Your task to perform on an android device: turn on priority inbox in the gmail app Image 0: 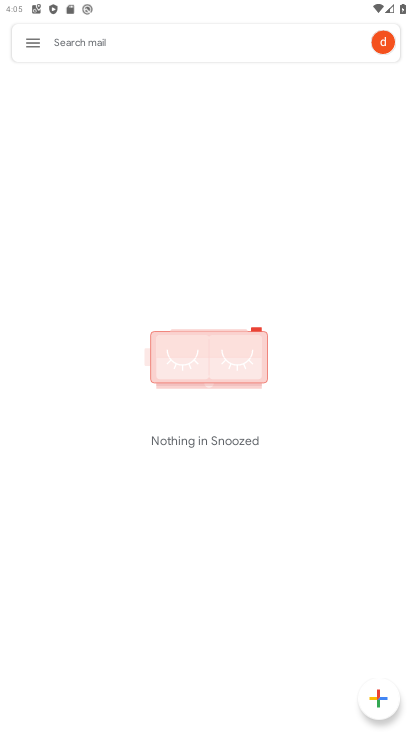
Step 0: press home button
Your task to perform on an android device: turn on priority inbox in the gmail app Image 1: 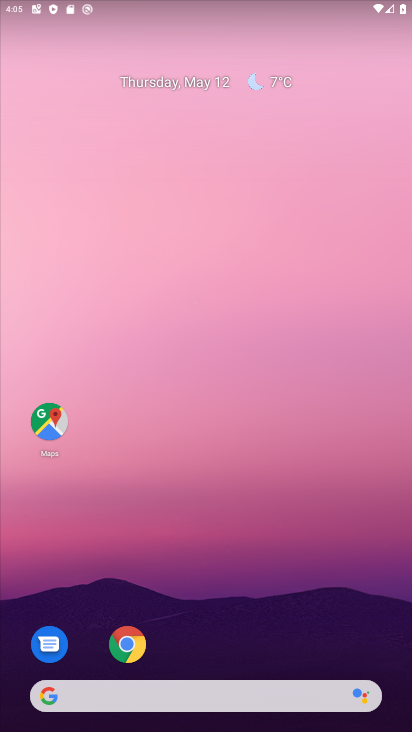
Step 1: drag from (225, 662) to (283, 129)
Your task to perform on an android device: turn on priority inbox in the gmail app Image 2: 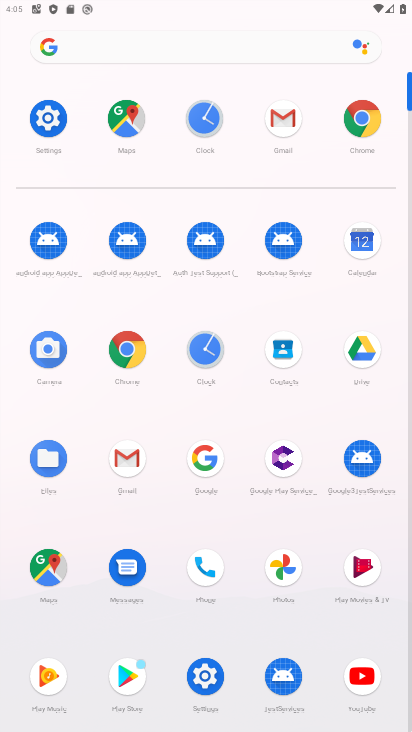
Step 2: click (122, 453)
Your task to perform on an android device: turn on priority inbox in the gmail app Image 3: 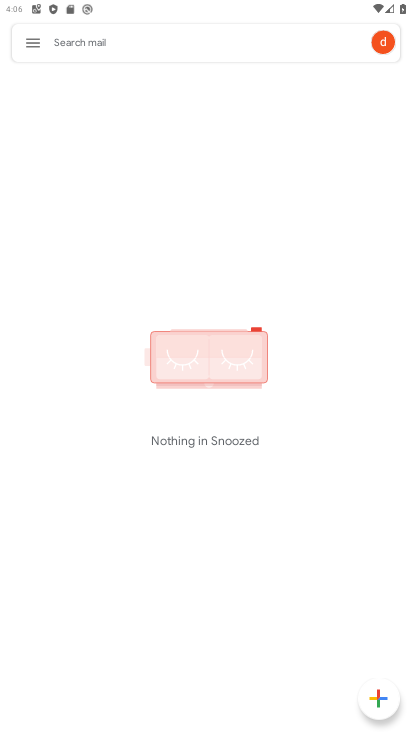
Step 3: click (30, 46)
Your task to perform on an android device: turn on priority inbox in the gmail app Image 4: 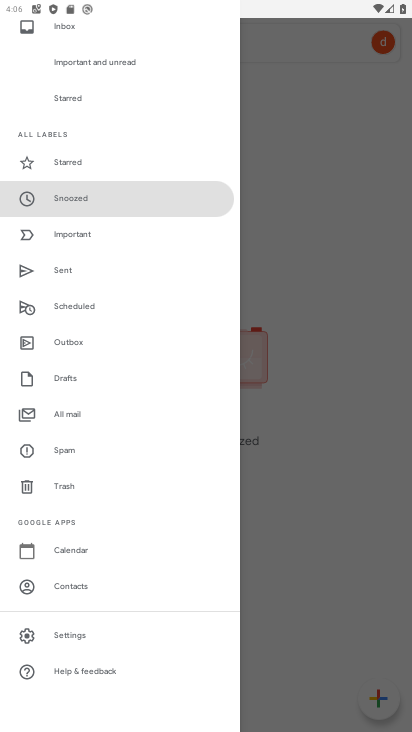
Step 4: click (98, 630)
Your task to perform on an android device: turn on priority inbox in the gmail app Image 5: 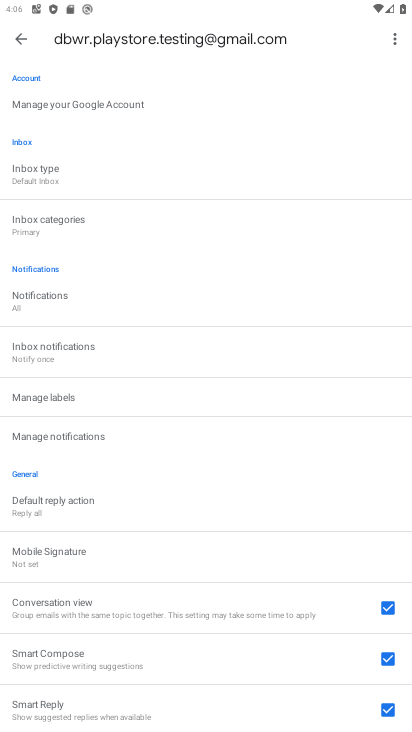
Step 5: click (68, 174)
Your task to perform on an android device: turn on priority inbox in the gmail app Image 6: 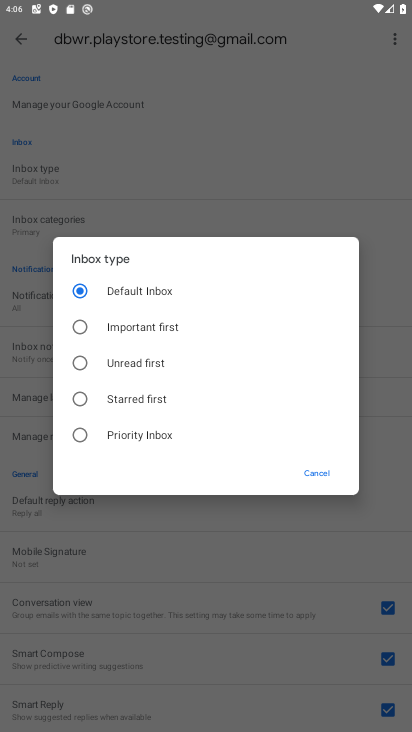
Step 6: click (82, 438)
Your task to perform on an android device: turn on priority inbox in the gmail app Image 7: 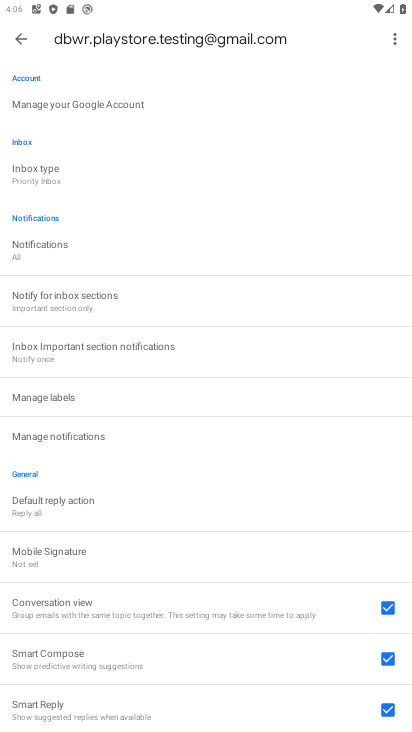
Step 7: task complete